Your task to perform on an android device: empty trash in the gmail app Image 0: 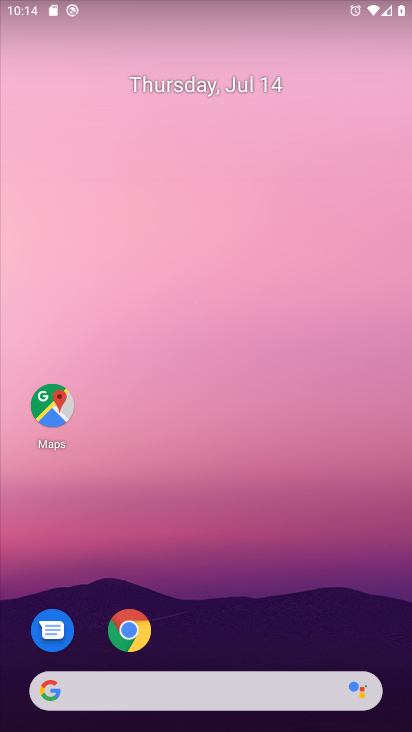
Step 0: click (372, 29)
Your task to perform on an android device: empty trash in the gmail app Image 1: 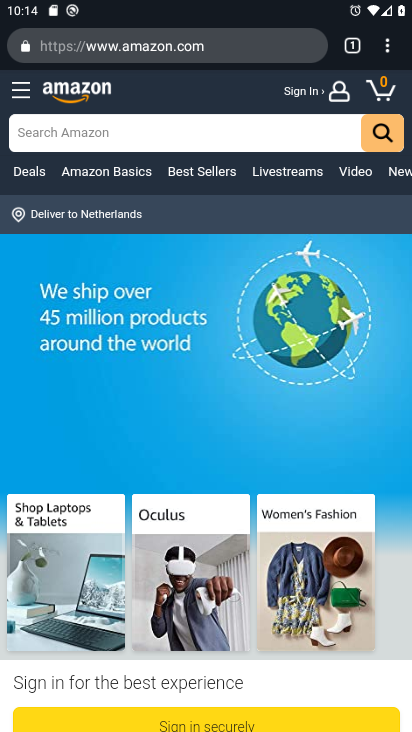
Step 1: drag from (202, 629) to (288, 182)
Your task to perform on an android device: empty trash in the gmail app Image 2: 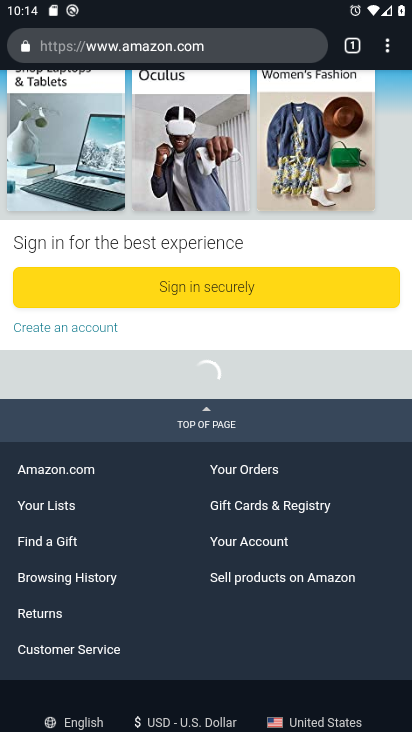
Step 2: press enter
Your task to perform on an android device: empty trash in the gmail app Image 3: 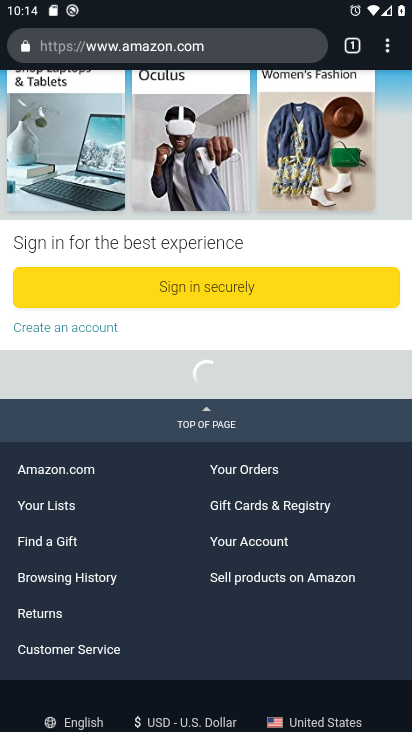
Step 3: press home button
Your task to perform on an android device: empty trash in the gmail app Image 4: 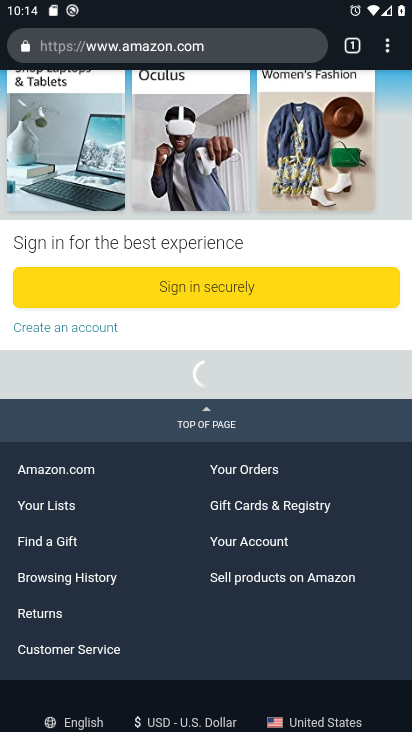
Step 4: drag from (119, 661) to (311, 154)
Your task to perform on an android device: empty trash in the gmail app Image 5: 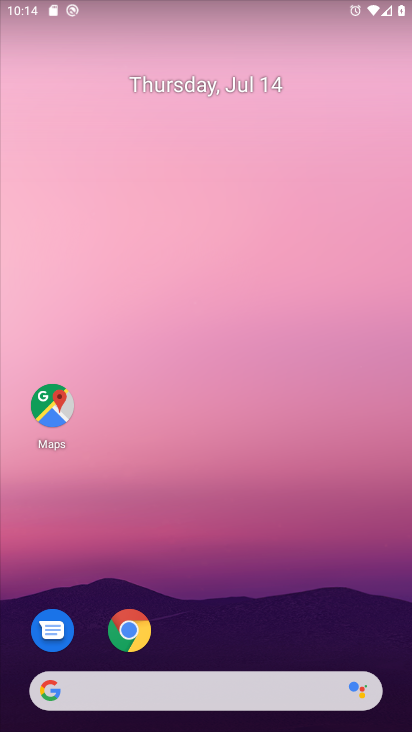
Step 5: drag from (213, 659) to (293, 117)
Your task to perform on an android device: empty trash in the gmail app Image 6: 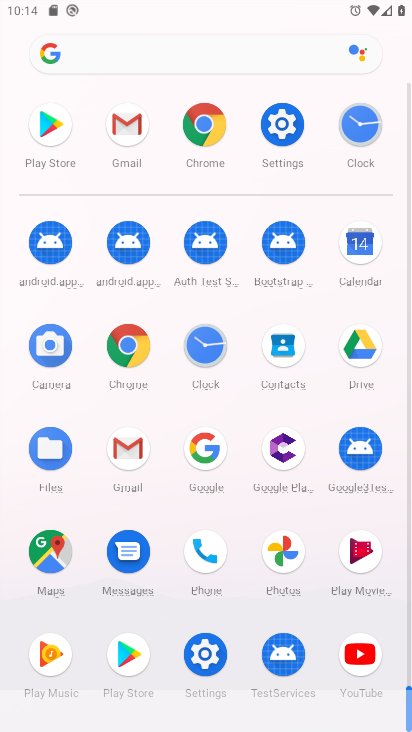
Step 6: click (135, 451)
Your task to perform on an android device: empty trash in the gmail app Image 7: 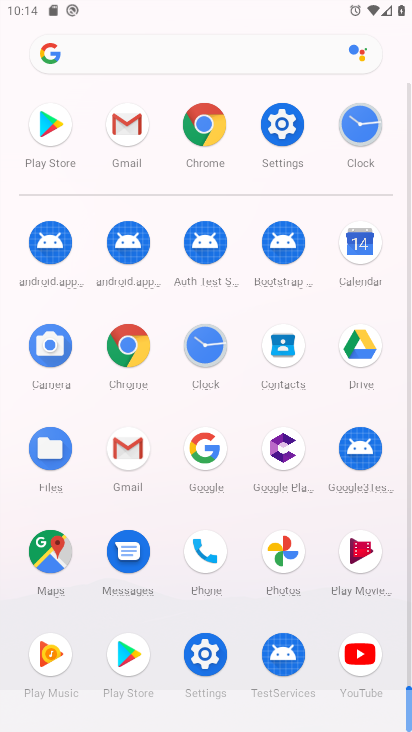
Step 7: click (134, 450)
Your task to perform on an android device: empty trash in the gmail app Image 8: 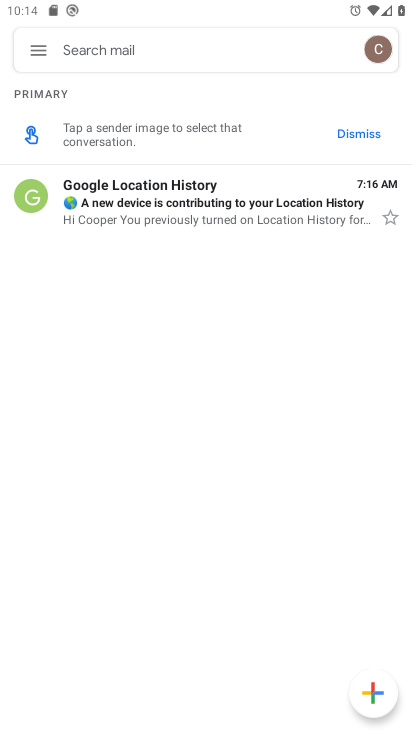
Step 8: click (37, 48)
Your task to perform on an android device: empty trash in the gmail app Image 9: 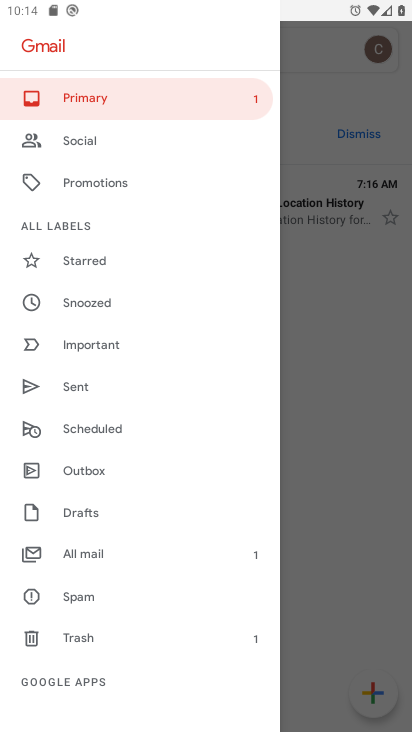
Step 9: drag from (106, 549) to (177, 251)
Your task to perform on an android device: empty trash in the gmail app Image 10: 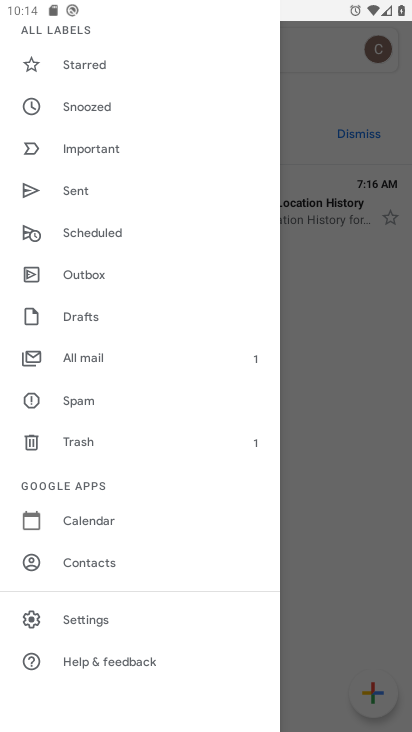
Step 10: click (82, 438)
Your task to perform on an android device: empty trash in the gmail app Image 11: 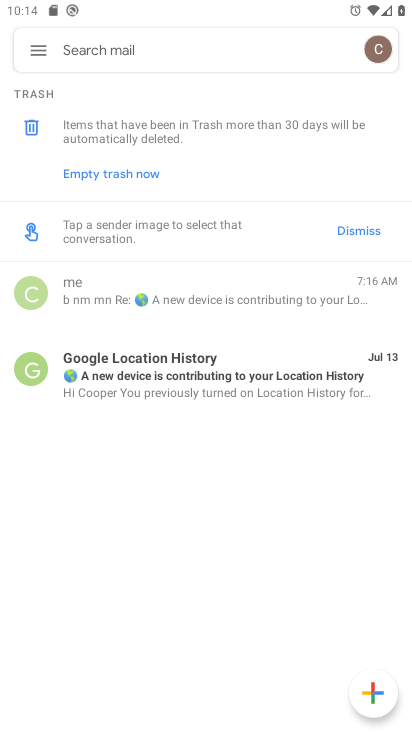
Step 11: drag from (194, 543) to (225, 295)
Your task to perform on an android device: empty trash in the gmail app Image 12: 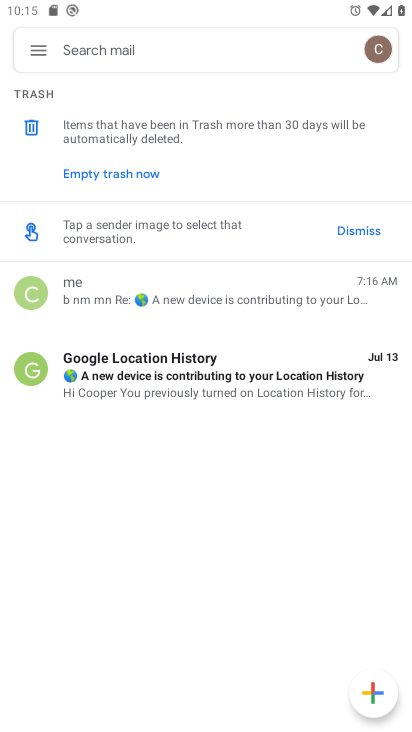
Step 12: drag from (246, 581) to (268, 421)
Your task to perform on an android device: empty trash in the gmail app Image 13: 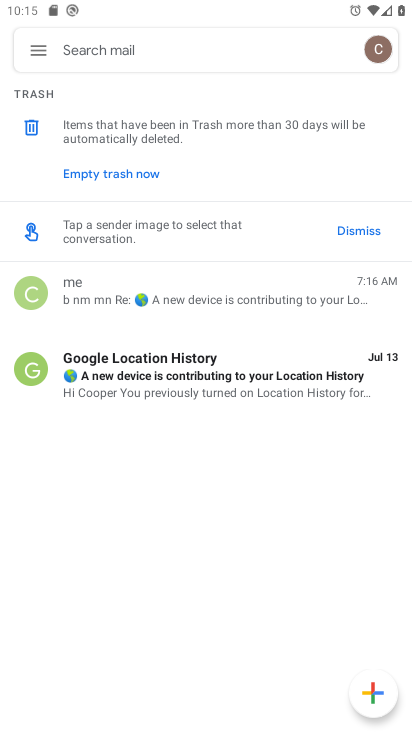
Step 13: click (51, 49)
Your task to perform on an android device: empty trash in the gmail app Image 14: 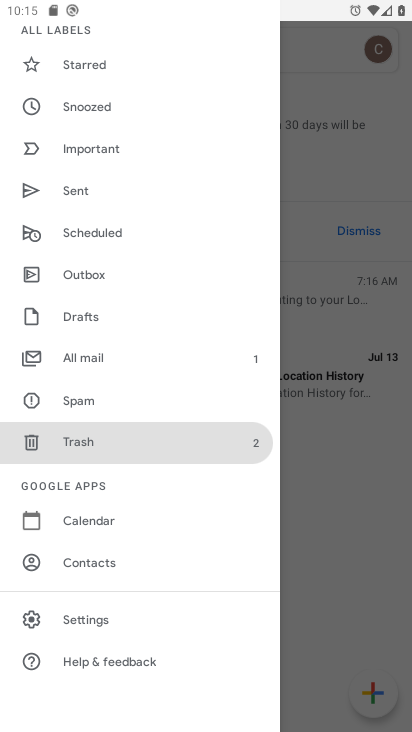
Step 14: click (95, 448)
Your task to perform on an android device: empty trash in the gmail app Image 15: 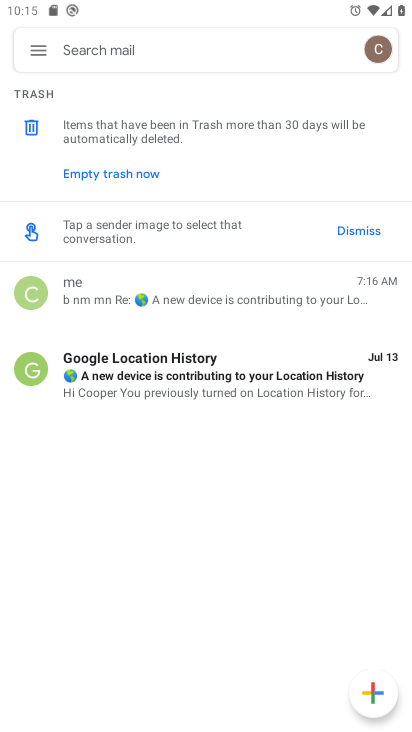
Step 15: click (110, 162)
Your task to perform on an android device: empty trash in the gmail app Image 16: 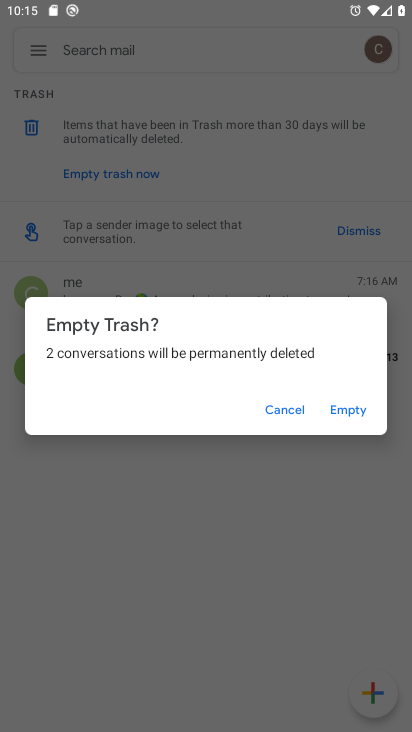
Step 16: click (336, 403)
Your task to perform on an android device: empty trash in the gmail app Image 17: 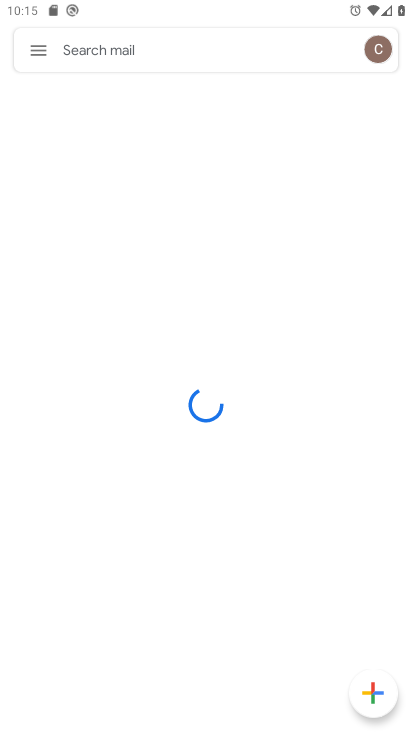
Step 17: task complete